Your task to perform on an android device: Go to Yahoo.com Image 0: 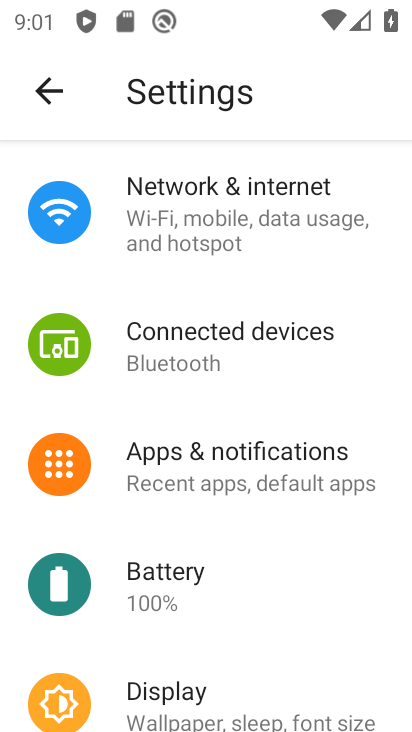
Step 0: press back button
Your task to perform on an android device: Go to Yahoo.com Image 1: 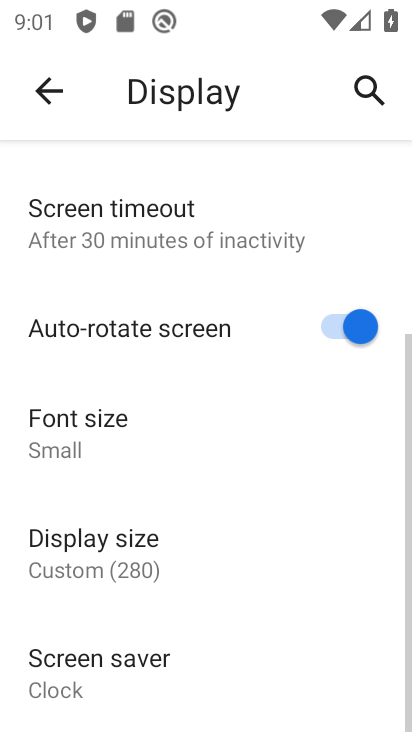
Step 1: press back button
Your task to perform on an android device: Go to Yahoo.com Image 2: 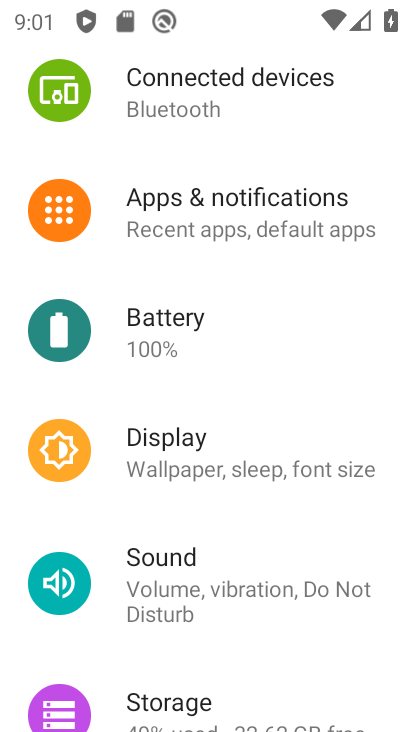
Step 2: press home button
Your task to perform on an android device: Go to Yahoo.com Image 3: 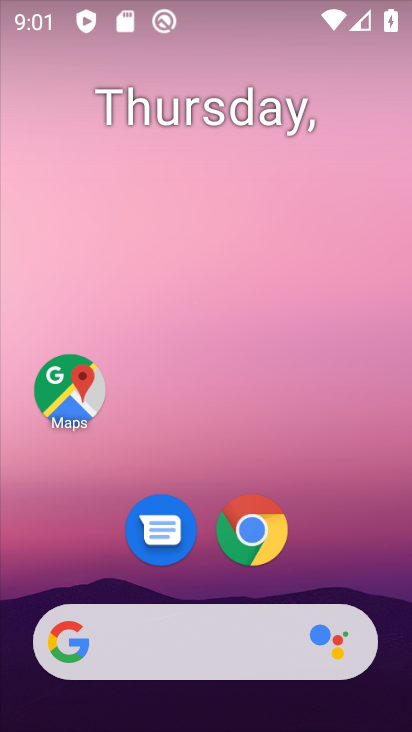
Step 3: drag from (327, 554) to (234, 16)
Your task to perform on an android device: Go to Yahoo.com Image 4: 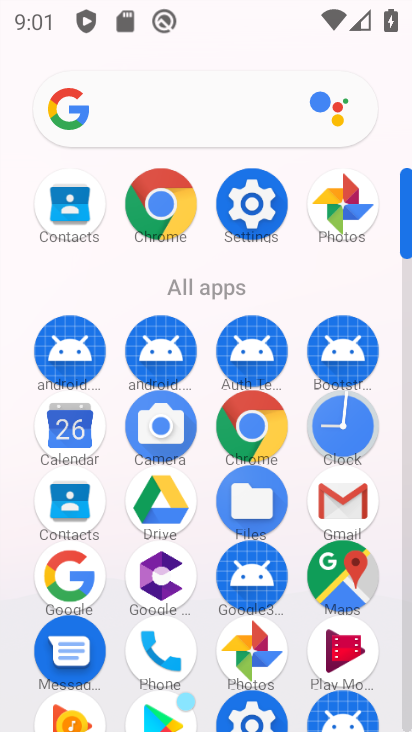
Step 4: click (164, 203)
Your task to perform on an android device: Go to Yahoo.com Image 5: 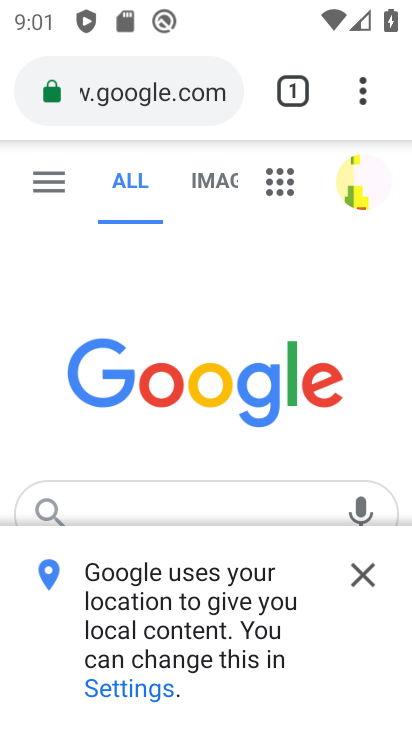
Step 5: click (135, 96)
Your task to perform on an android device: Go to Yahoo.com Image 6: 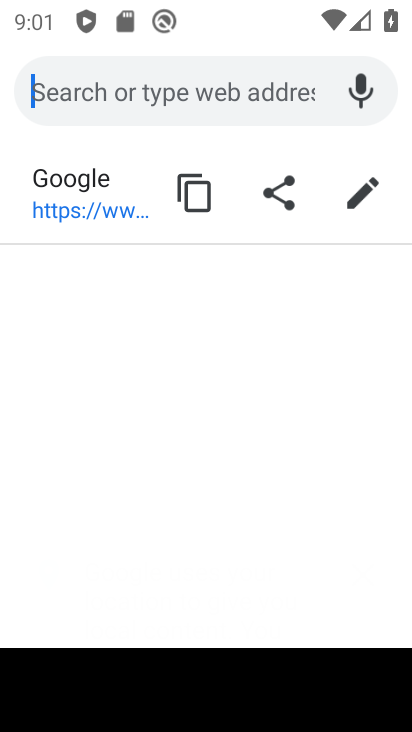
Step 6: type "Yahoo.com"
Your task to perform on an android device: Go to Yahoo.com Image 7: 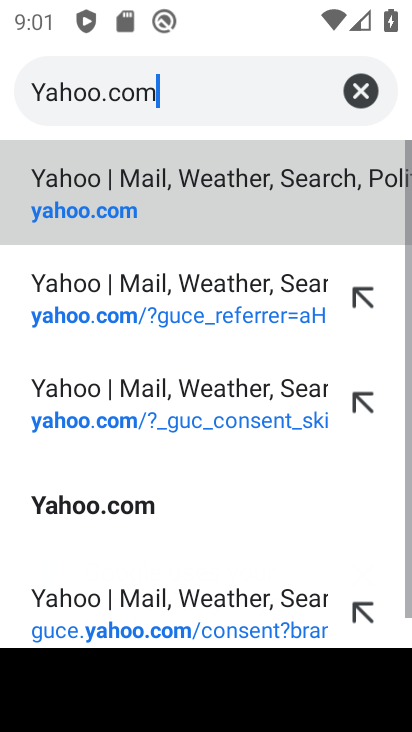
Step 7: type ""
Your task to perform on an android device: Go to Yahoo.com Image 8: 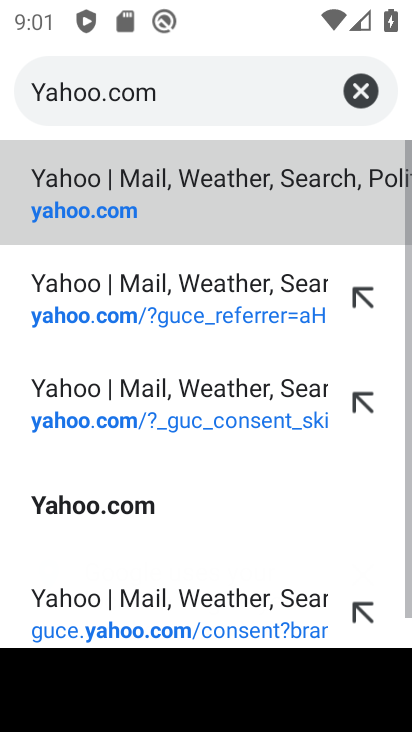
Step 8: click (152, 212)
Your task to perform on an android device: Go to Yahoo.com Image 9: 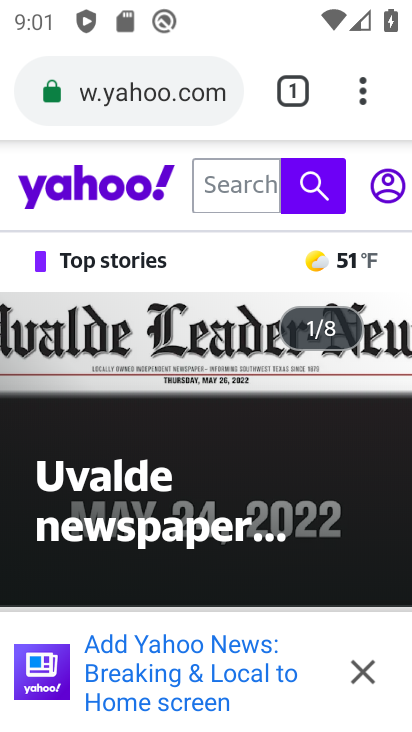
Step 9: task complete